Your task to perform on an android device: Open location settings Image 0: 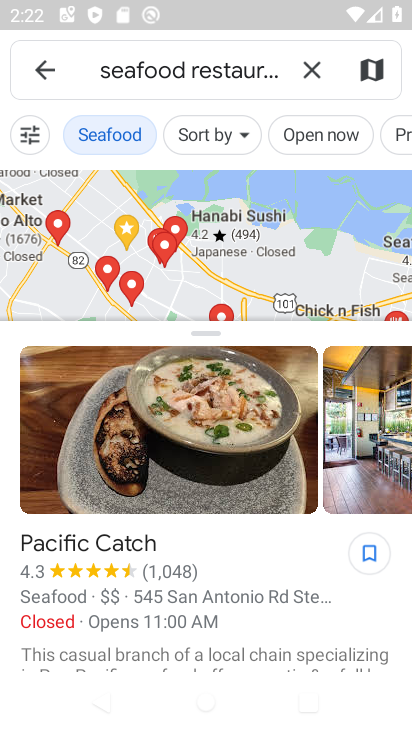
Step 0: press home button
Your task to perform on an android device: Open location settings Image 1: 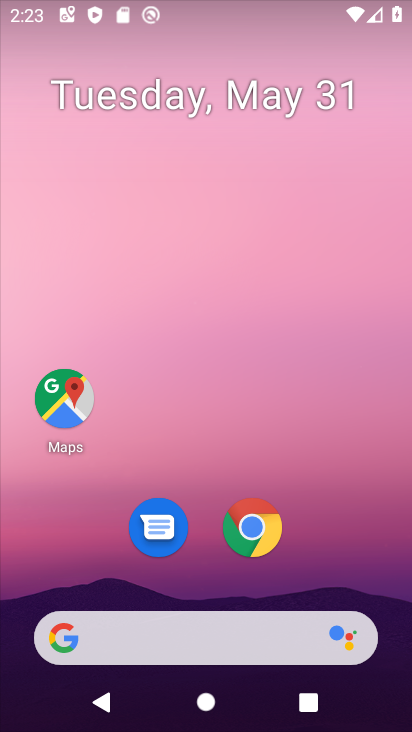
Step 1: drag from (361, 531) to (399, 66)
Your task to perform on an android device: Open location settings Image 2: 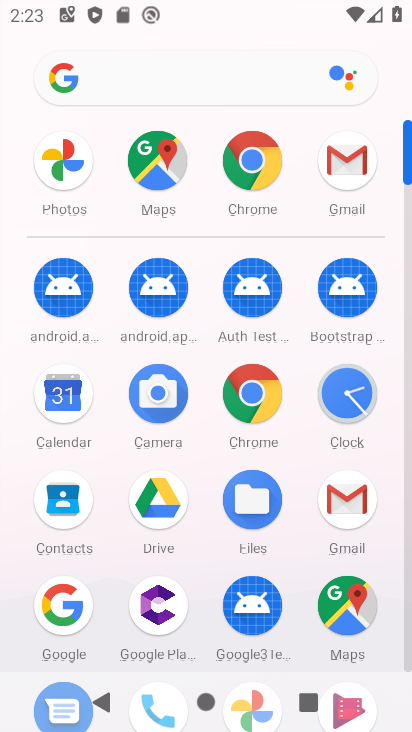
Step 2: drag from (397, 504) to (411, 230)
Your task to perform on an android device: Open location settings Image 3: 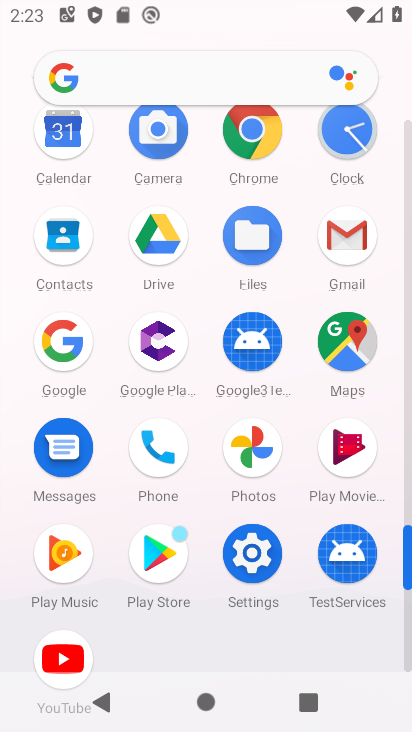
Step 3: click (253, 548)
Your task to perform on an android device: Open location settings Image 4: 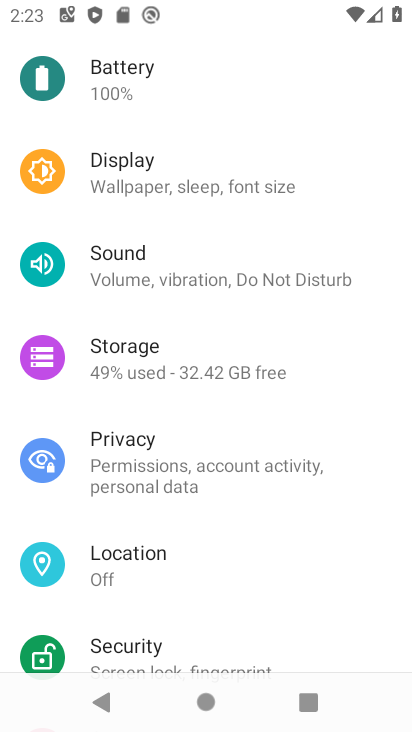
Step 4: click (138, 555)
Your task to perform on an android device: Open location settings Image 5: 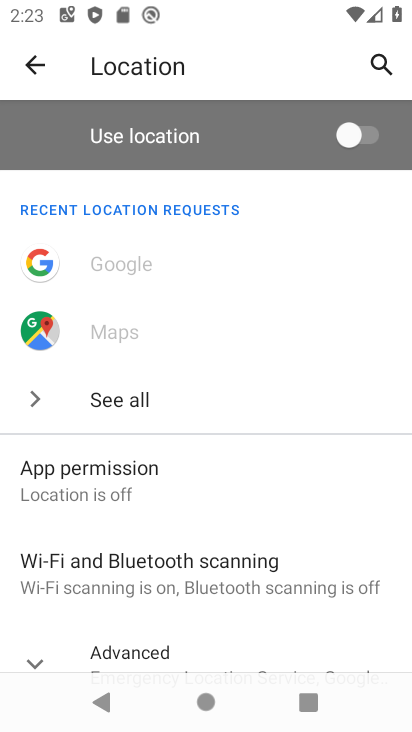
Step 5: task complete